Your task to perform on an android device: Turn off the flashlight Image 0: 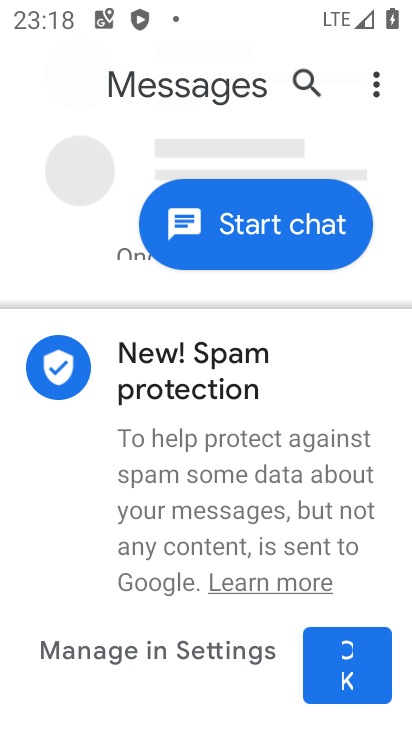
Step 0: press home button
Your task to perform on an android device: Turn off the flashlight Image 1: 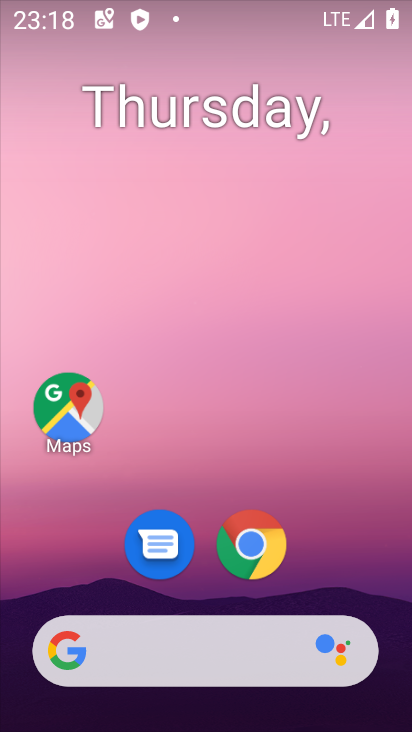
Step 1: drag from (324, 555) to (202, 75)
Your task to perform on an android device: Turn off the flashlight Image 2: 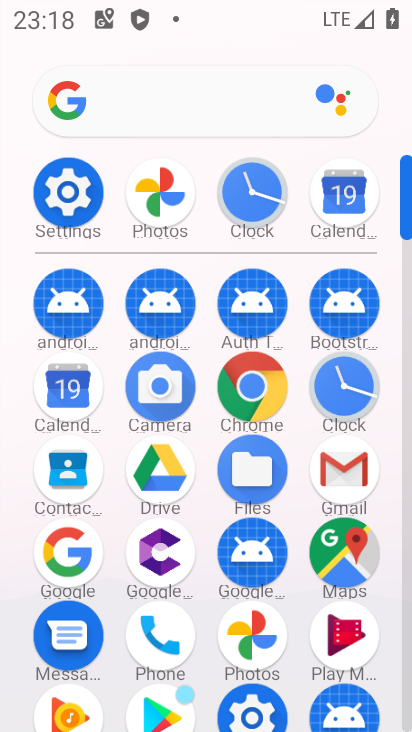
Step 2: click (80, 198)
Your task to perform on an android device: Turn off the flashlight Image 3: 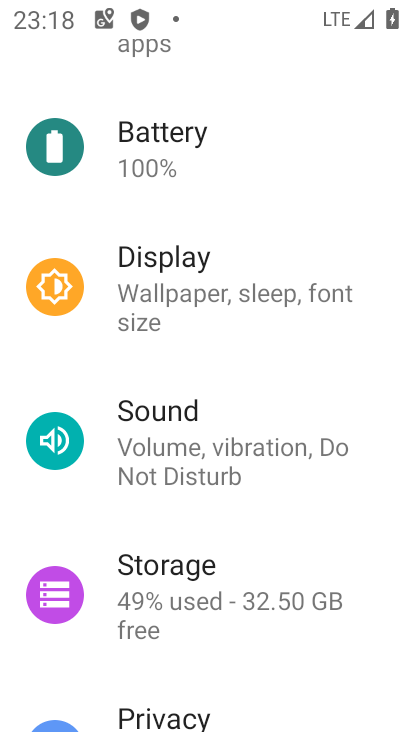
Step 3: drag from (274, 134) to (252, 615)
Your task to perform on an android device: Turn off the flashlight Image 4: 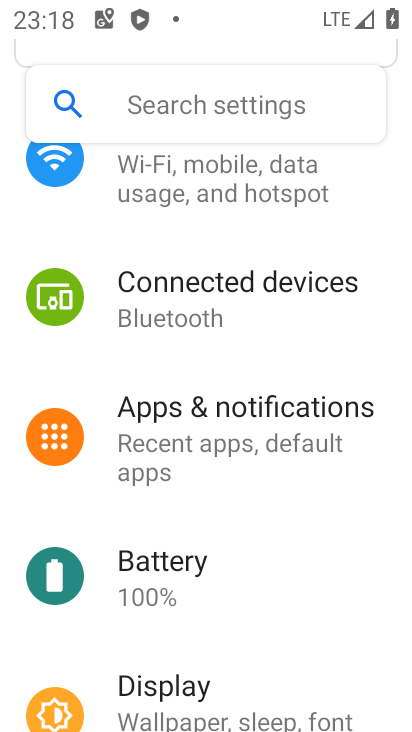
Step 4: click (201, 93)
Your task to perform on an android device: Turn off the flashlight Image 5: 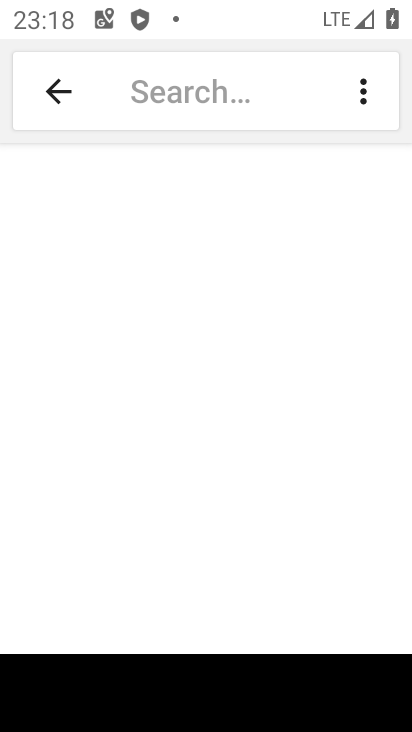
Step 5: type "flashlight"
Your task to perform on an android device: Turn off the flashlight Image 6: 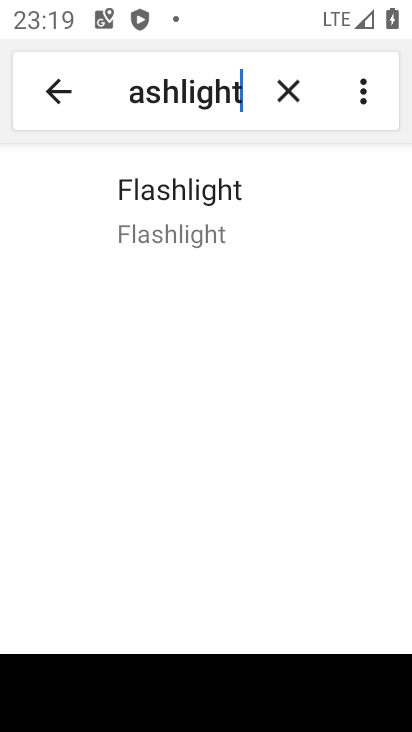
Step 6: click (245, 212)
Your task to perform on an android device: Turn off the flashlight Image 7: 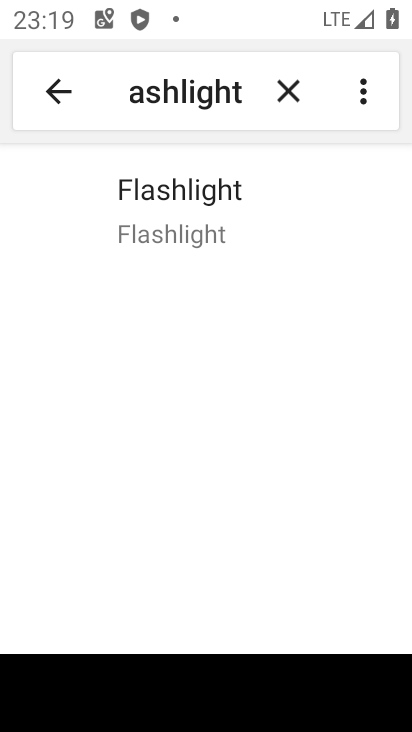
Step 7: task complete